Your task to perform on an android device: Look up the best rated power drills on Lowes.com Image 0: 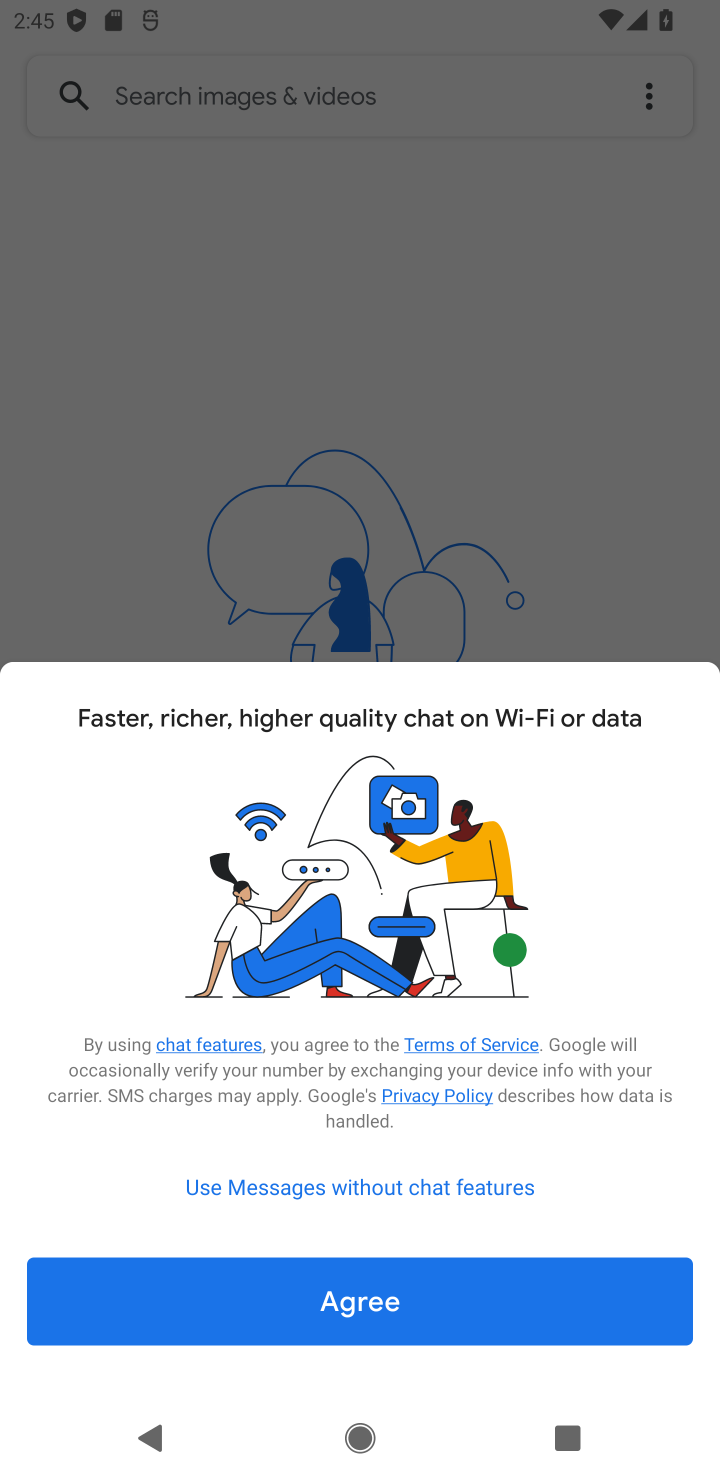
Step 0: press home button
Your task to perform on an android device: Look up the best rated power drills on Lowes.com Image 1: 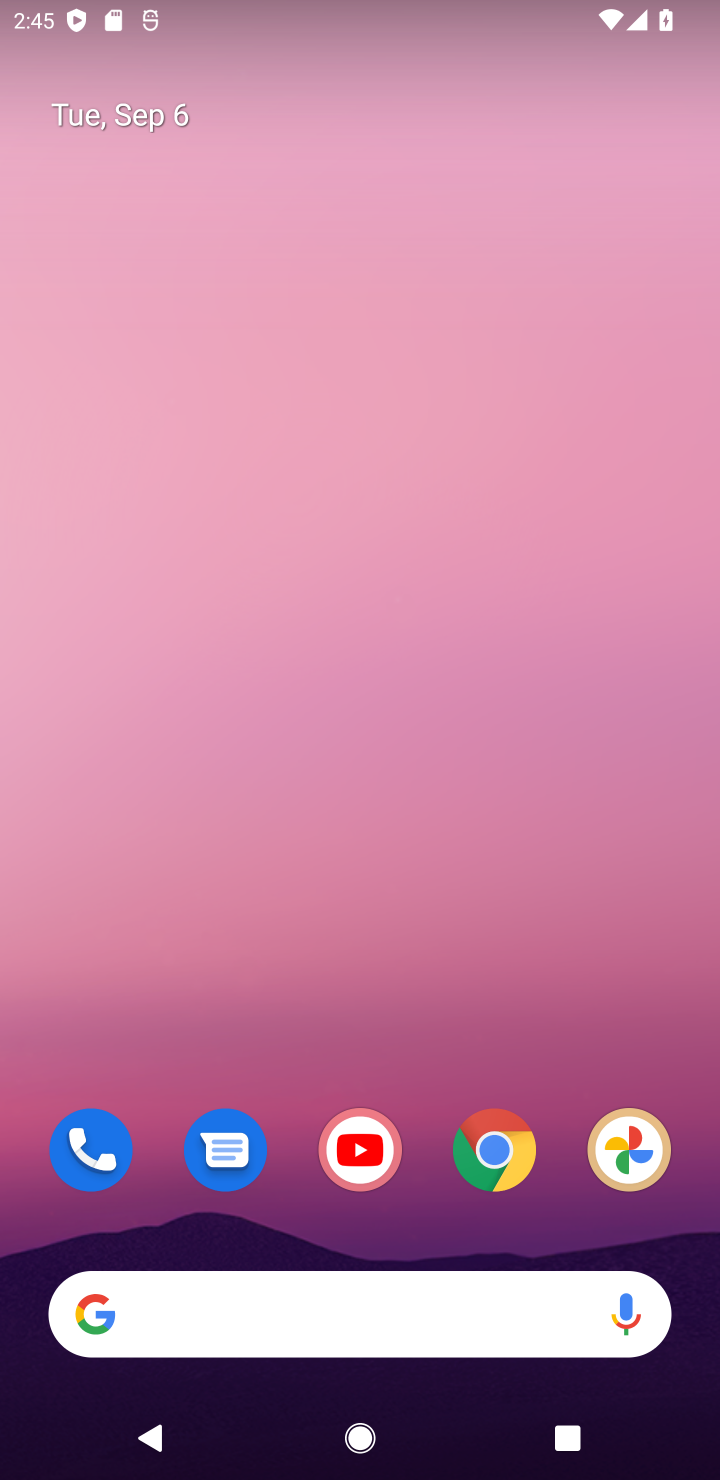
Step 1: click (492, 1160)
Your task to perform on an android device: Look up the best rated power drills on Lowes.com Image 2: 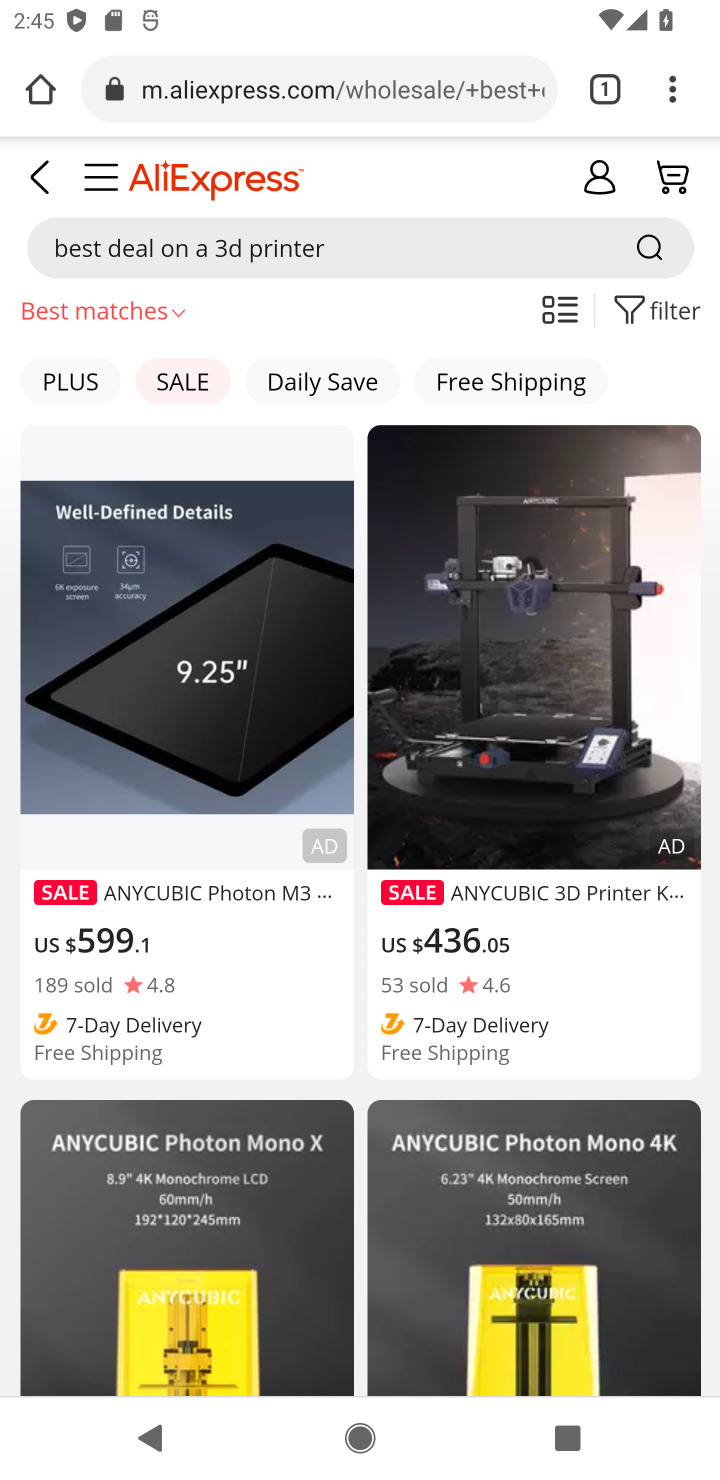
Step 2: click (369, 105)
Your task to perform on an android device: Look up the best rated power drills on Lowes.com Image 3: 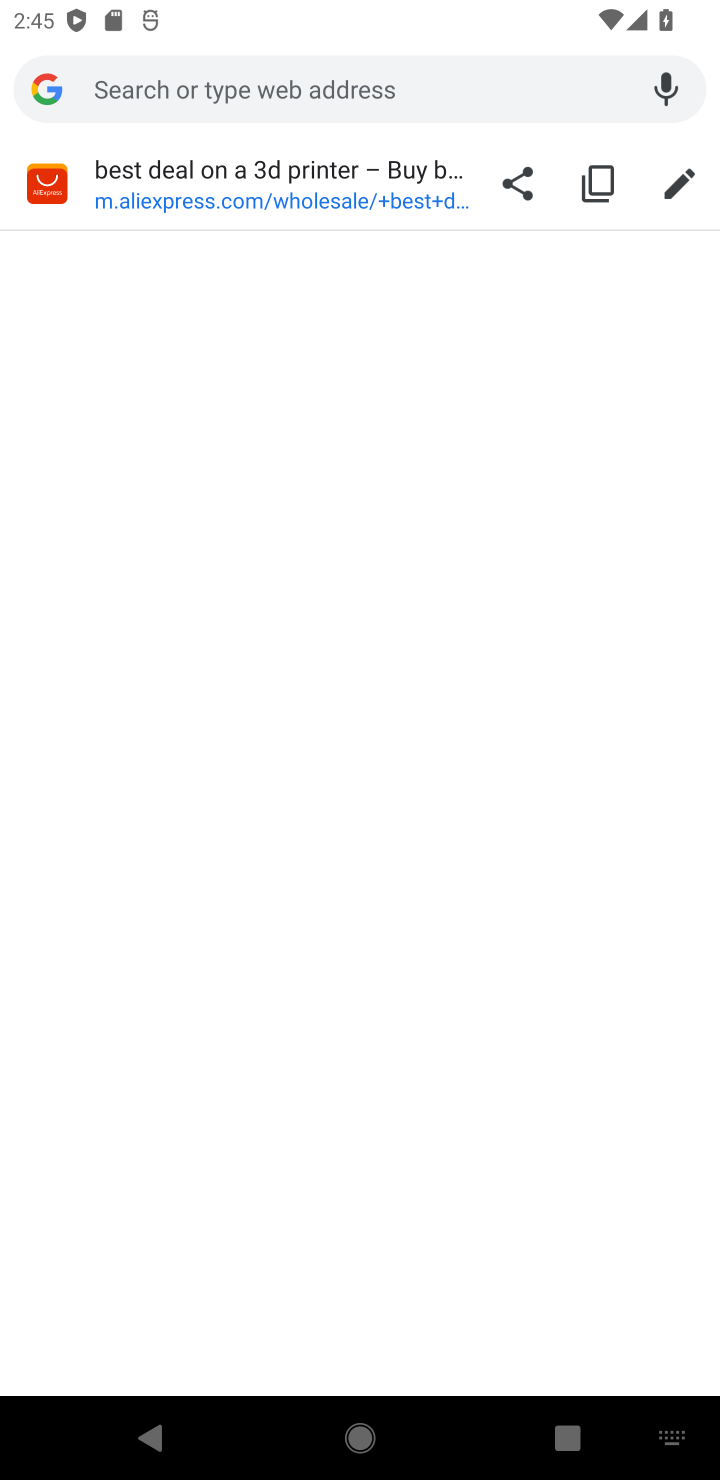
Step 3: type "Lowes.com"
Your task to perform on an android device: Look up the best rated power drills on Lowes.com Image 4: 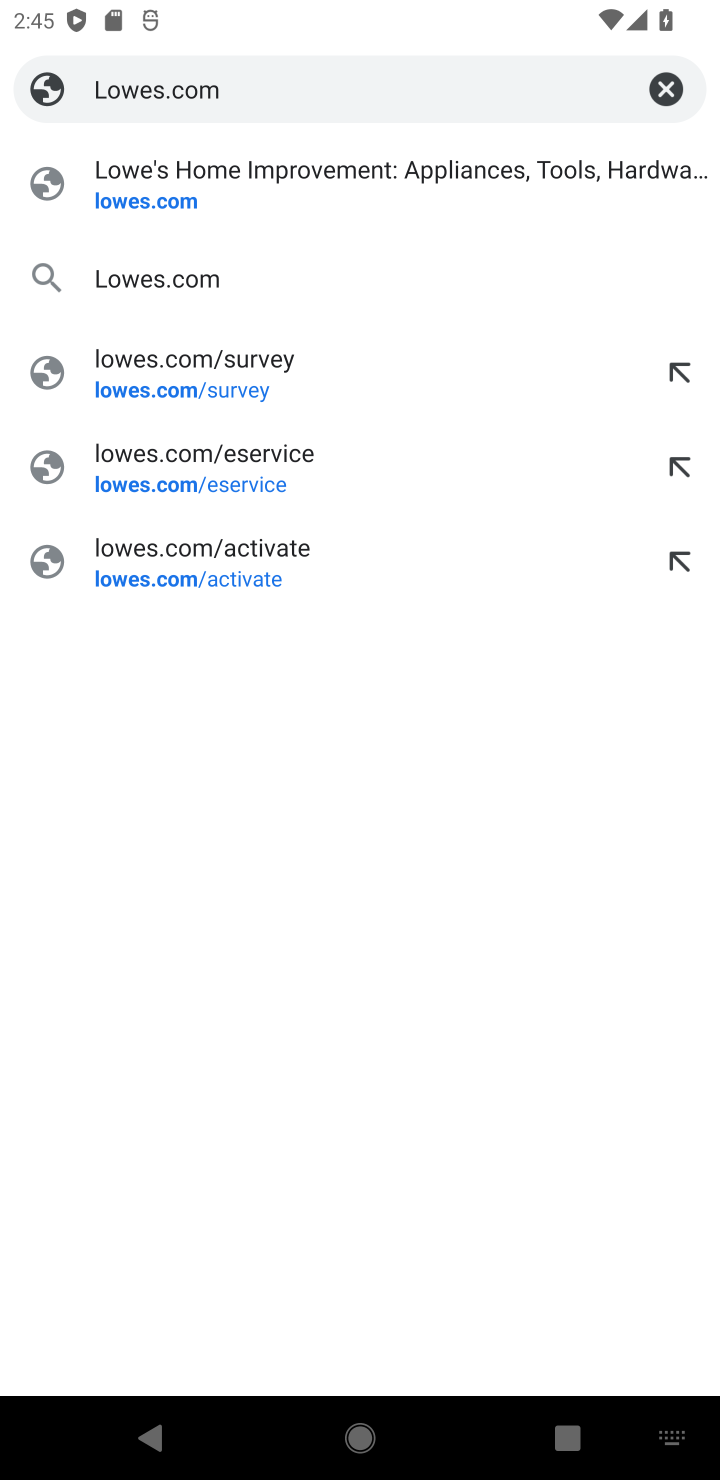
Step 4: click (177, 284)
Your task to perform on an android device: Look up the best rated power drills on Lowes.com Image 5: 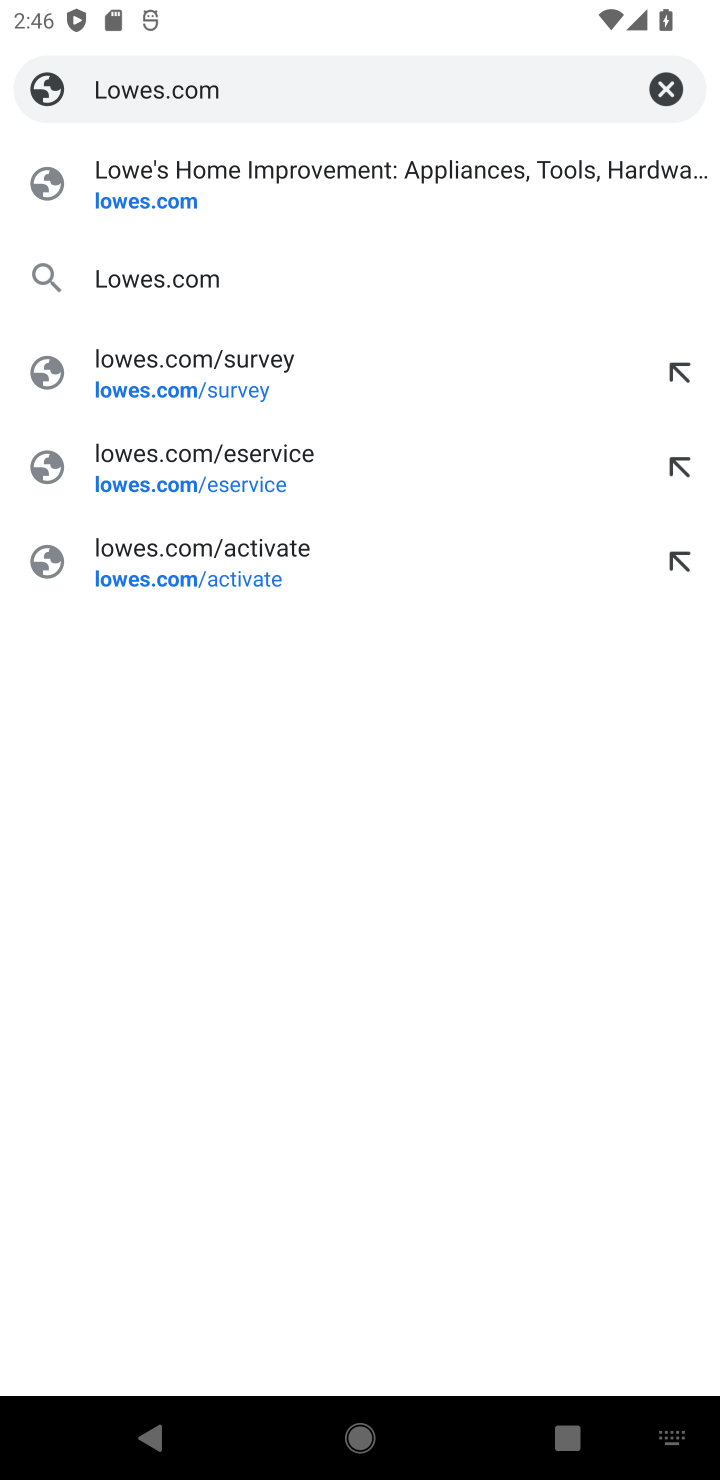
Step 5: click (177, 284)
Your task to perform on an android device: Look up the best rated power drills on Lowes.com Image 6: 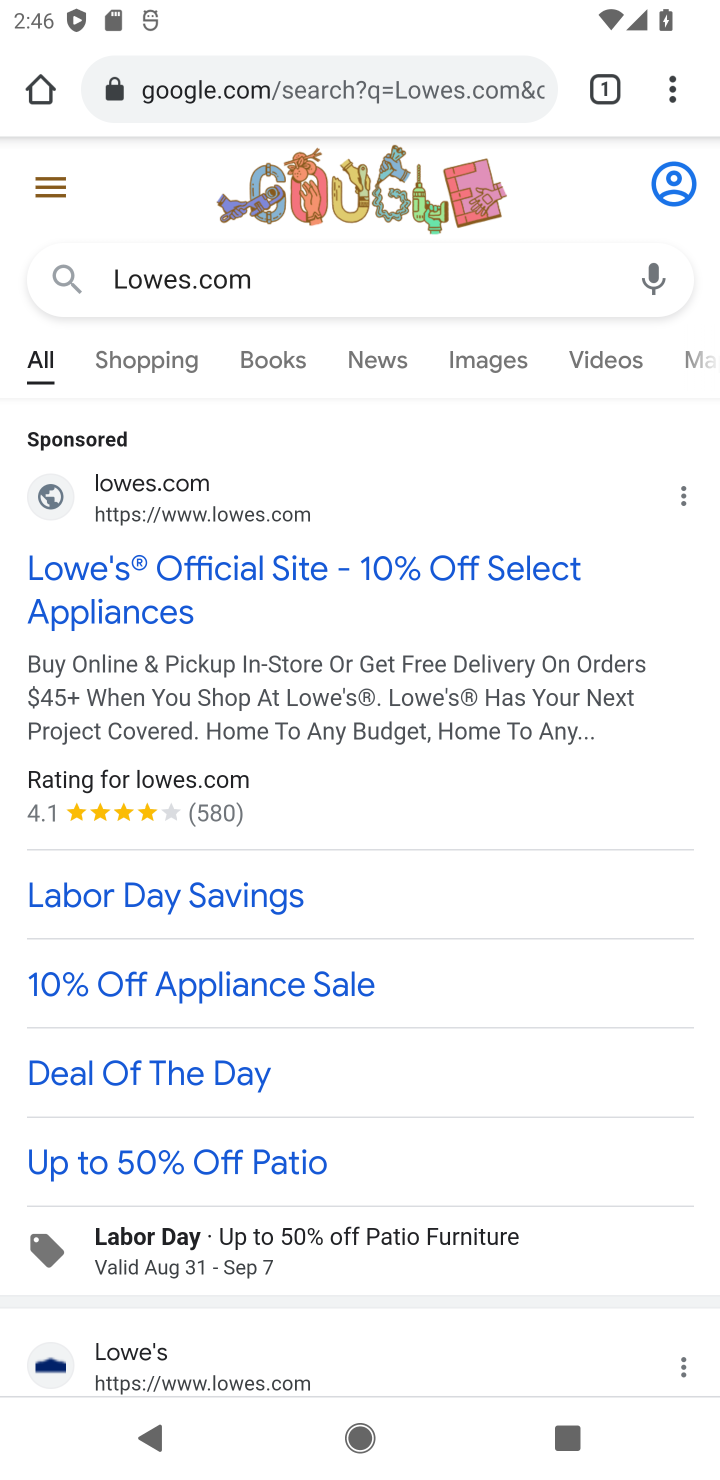
Step 6: drag from (539, 1079) to (550, 434)
Your task to perform on an android device: Look up the best rated power drills on Lowes.com Image 7: 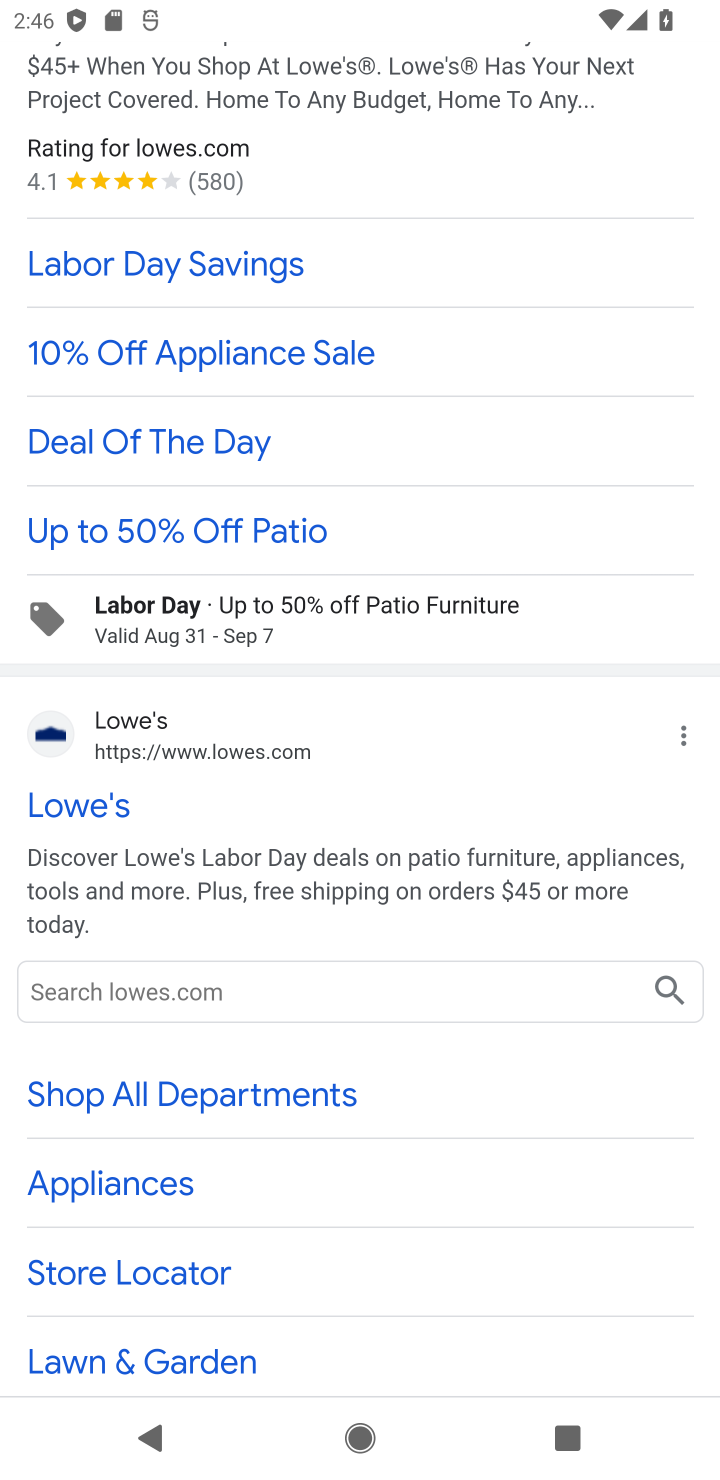
Step 7: click (56, 825)
Your task to perform on an android device: Look up the best rated power drills on Lowes.com Image 8: 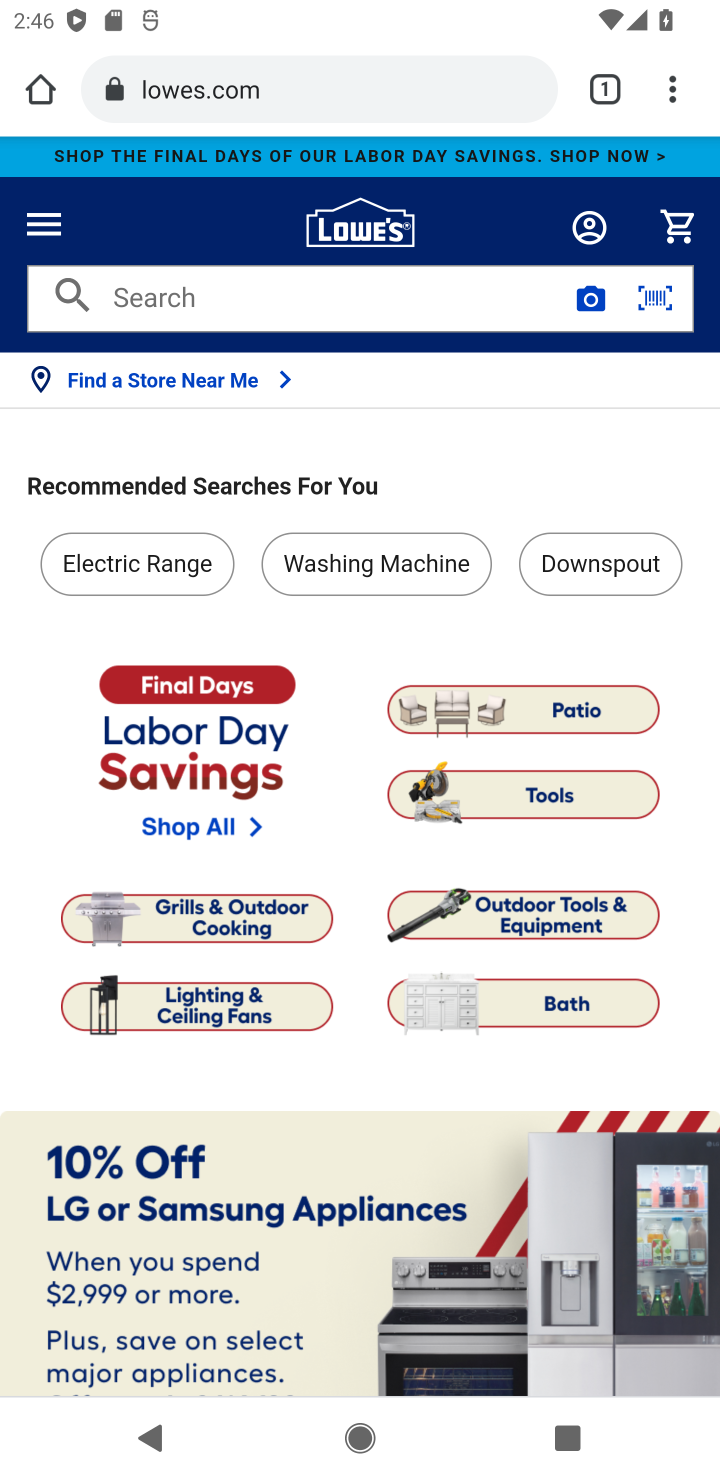
Step 8: click (211, 293)
Your task to perform on an android device: Look up the best rated power drills on Lowes.com Image 9: 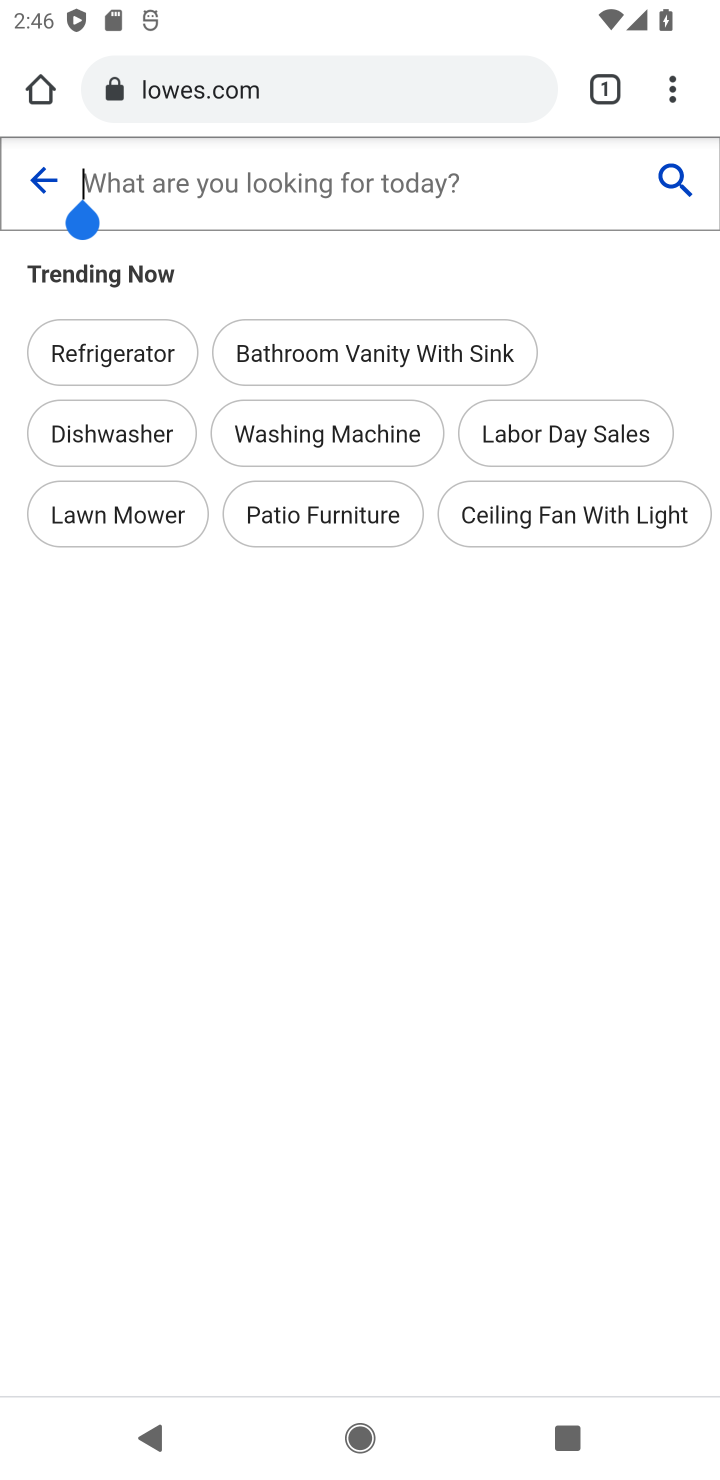
Step 9: type "best rated power drills"
Your task to perform on an android device: Look up the best rated power drills on Lowes.com Image 10: 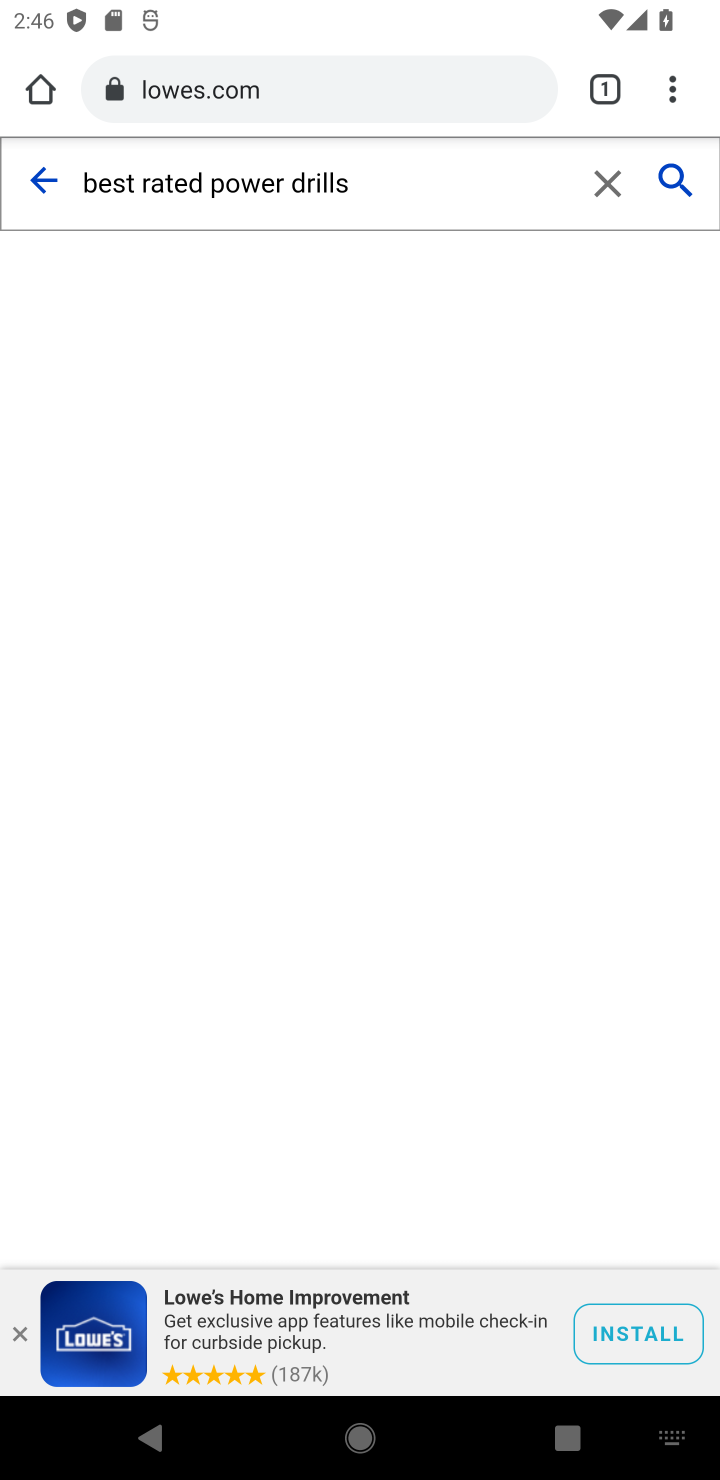
Step 10: click (665, 183)
Your task to perform on an android device: Look up the best rated power drills on Lowes.com Image 11: 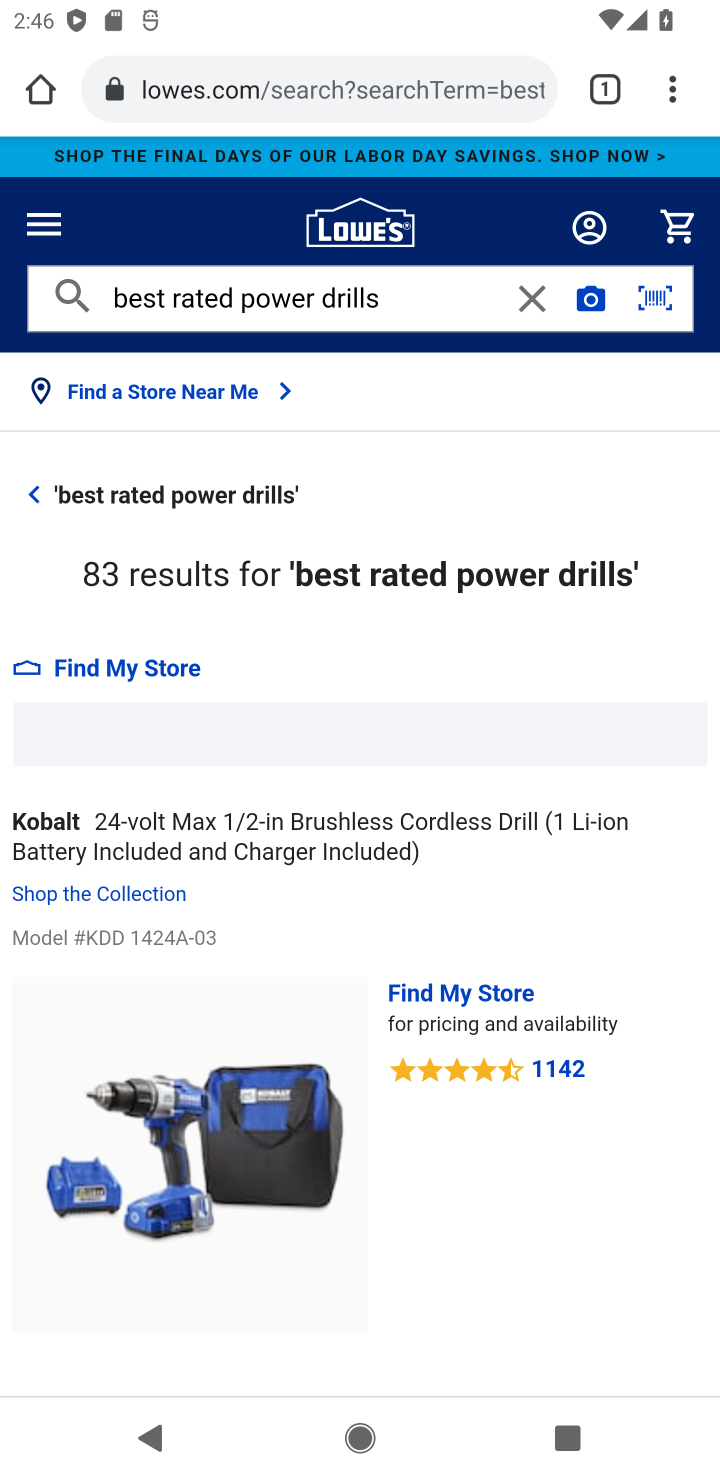
Step 11: task complete